Your task to perform on an android device: Open the calendar and show me this week's events? Image 0: 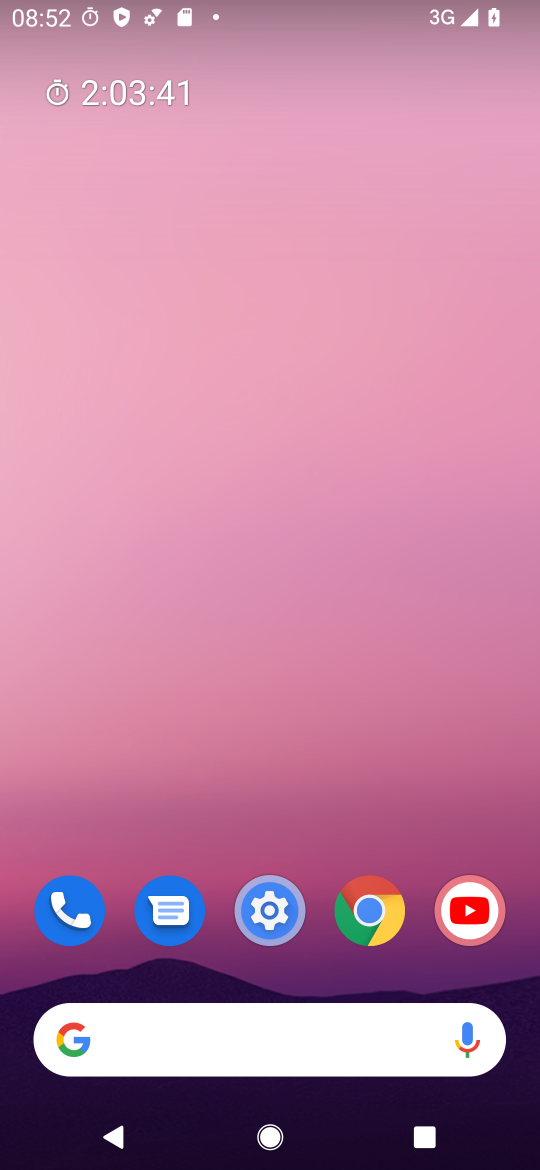
Step 0: drag from (306, 1021) to (258, 119)
Your task to perform on an android device: Open the calendar and show me this week's events? Image 1: 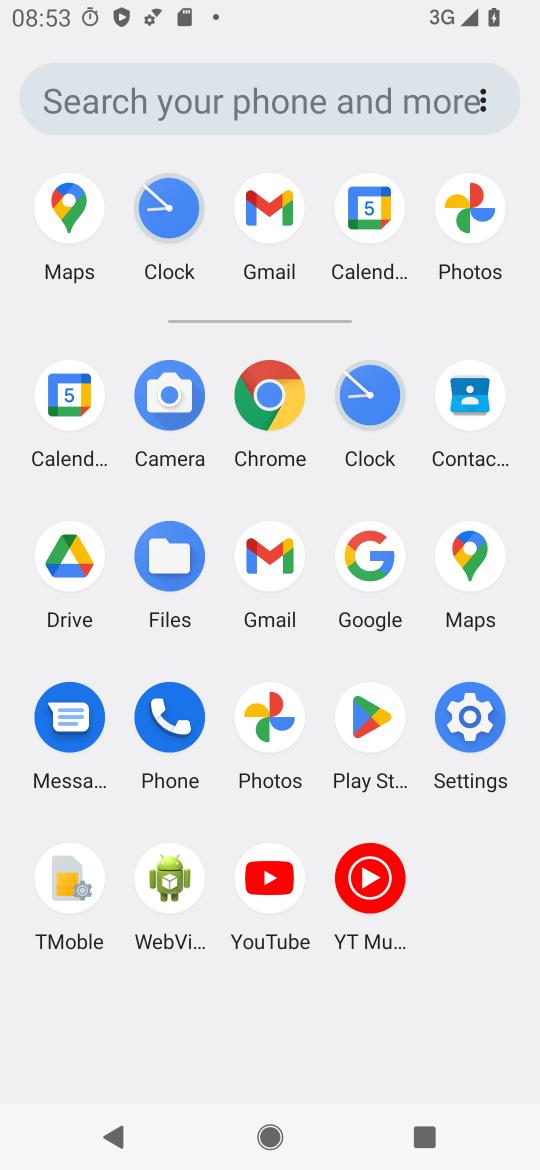
Step 1: click (52, 393)
Your task to perform on an android device: Open the calendar and show me this week's events? Image 2: 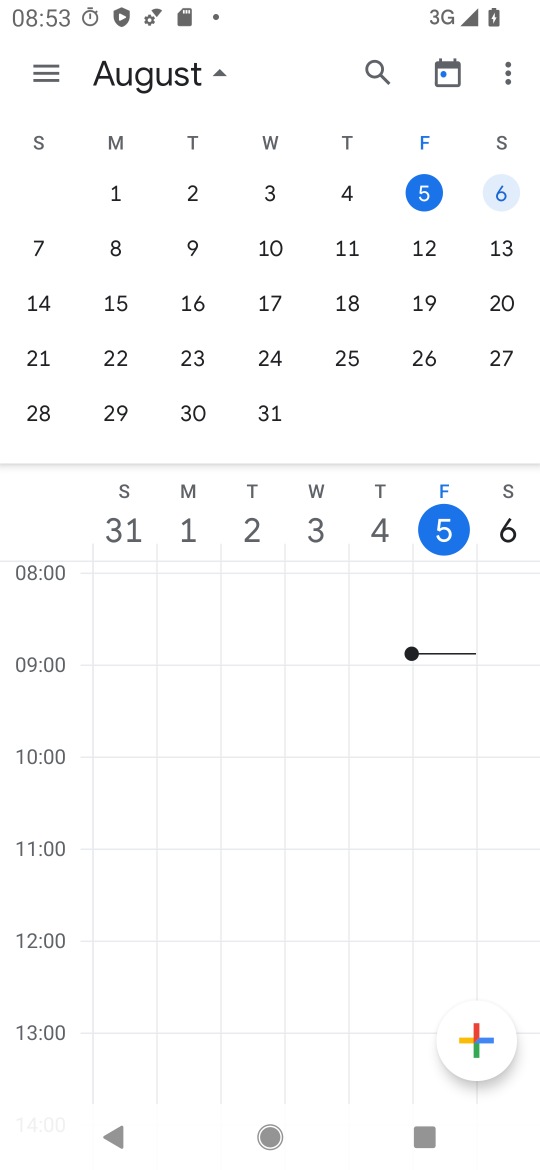
Step 2: task complete